Your task to perform on an android device: find snoozed emails in the gmail app Image 0: 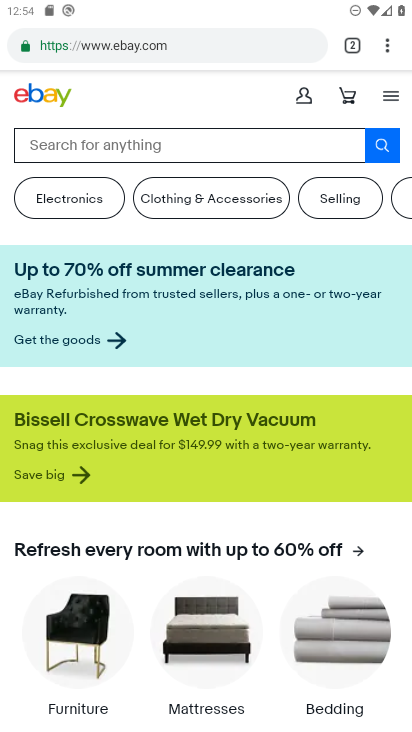
Step 0: press home button
Your task to perform on an android device: find snoozed emails in the gmail app Image 1: 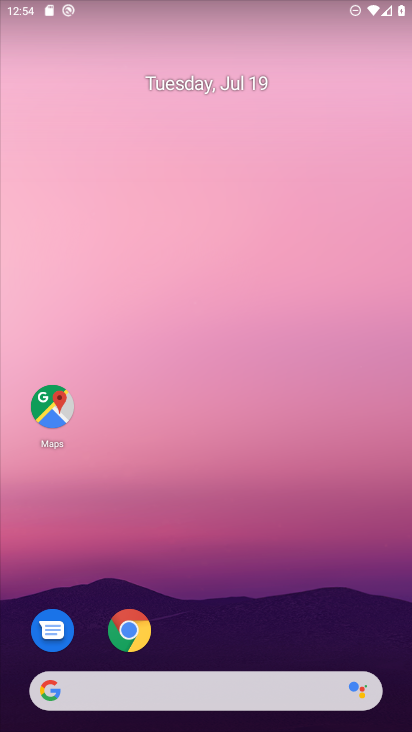
Step 1: drag from (275, 614) to (365, 138)
Your task to perform on an android device: find snoozed emails in the gmail app Image 2: 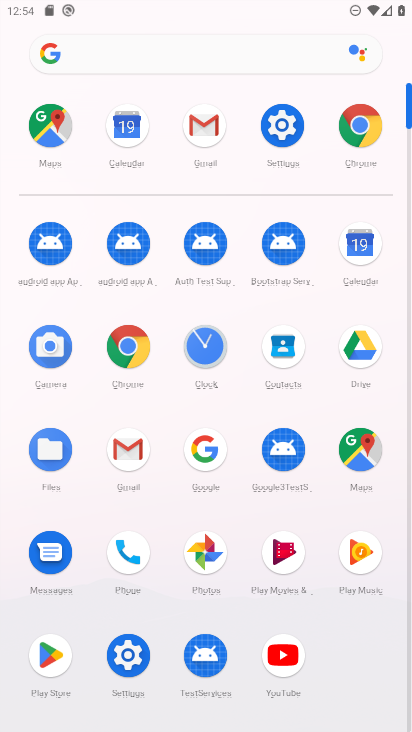
Step 2: click (203, 132)
Your task to perform on an android device: find snoozed emails in the gmail app Image 3: 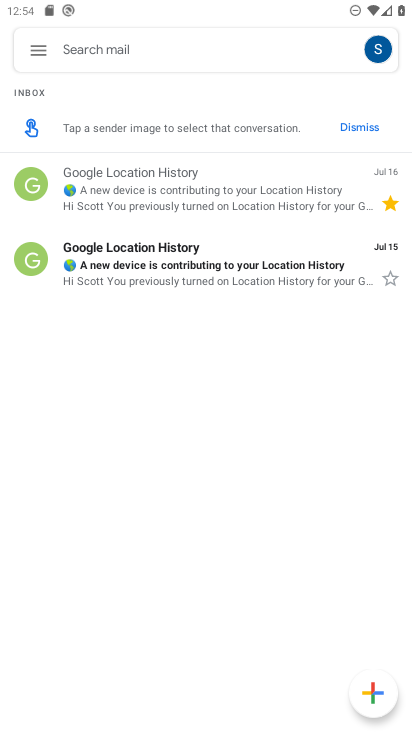
Step 3: click (37, 52)
Your task to perform on an android device: find snoozed emails in the gmail app Image 4: 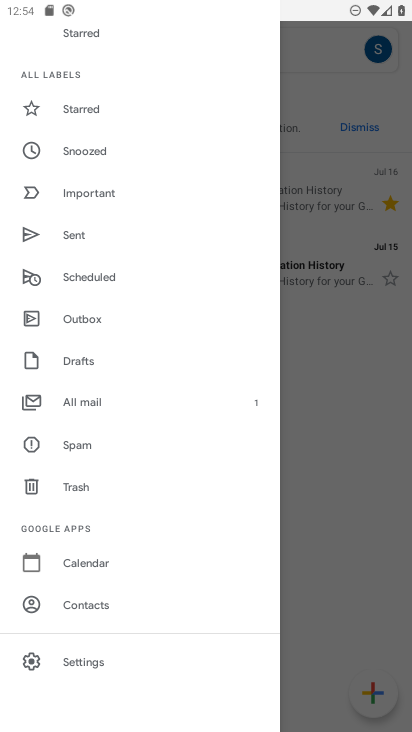
Step 4: click (72, 151)
Your task to perform on an android device: find snoozed emails in the gmail app Image 5: 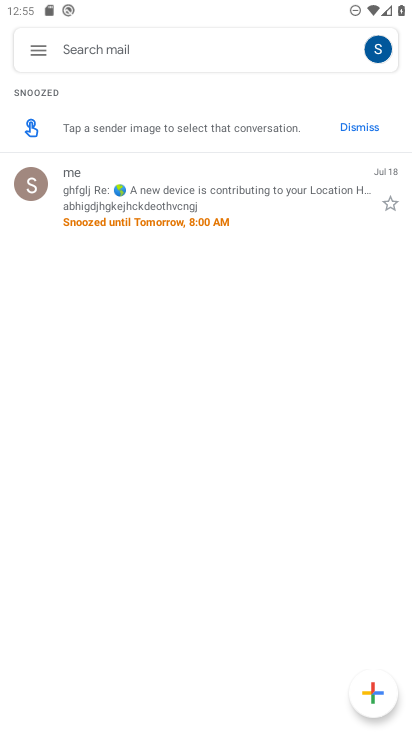
Step 5: task complete